Your task to perform on an android device: move an email to a new category in the gmail app Image 0: 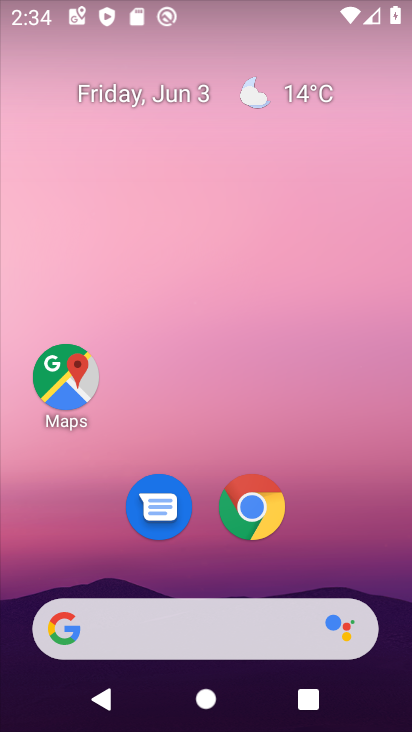
Step 0: drag from (328, 533) to (244, 31)
Your task to perform on an android device: move an email to a new category in the gmail app Image 1: 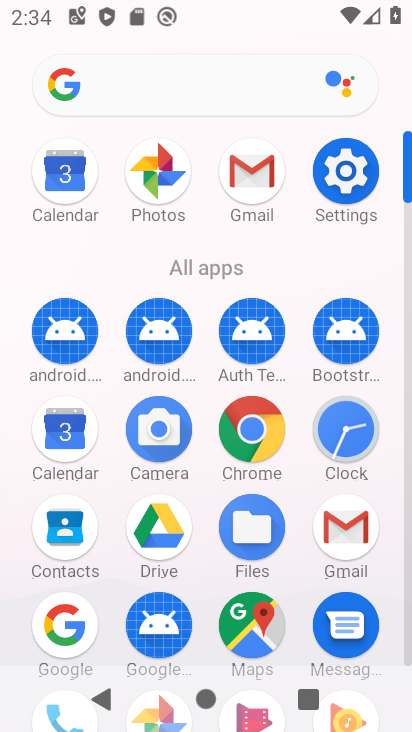
Step 1: click (251, 170)
Your task to perform on an android device: move an email to a new category in the gmail app Image 2: 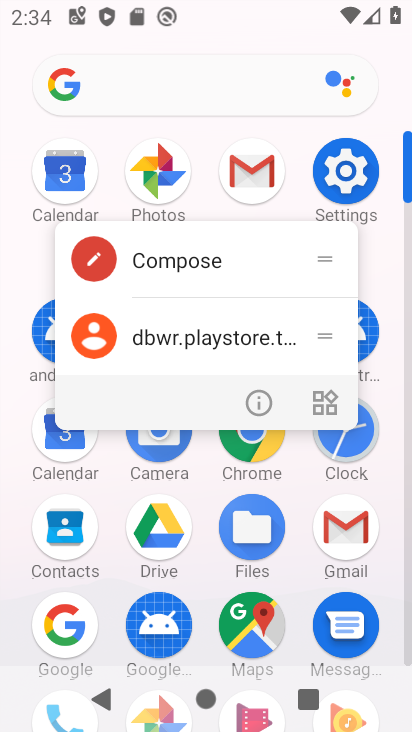
Step 2: click (251, 170)
Your task to perform on an android device: move an email to a new category in the gmail app Image 3: 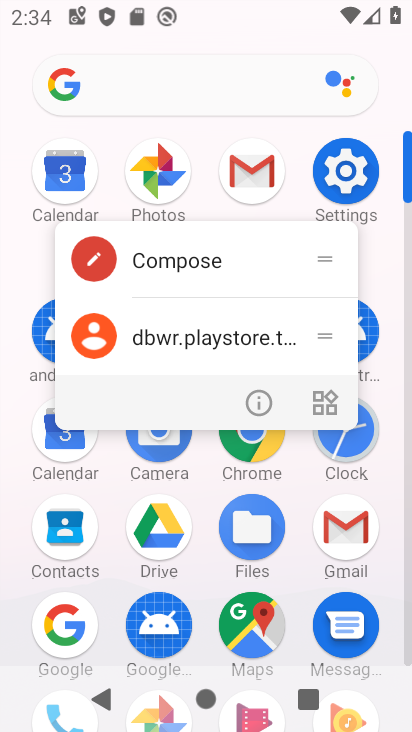
Step 3: click (251, 170)
Your task to perform on an android device: move an email to a new category in the gmail app Image 4: 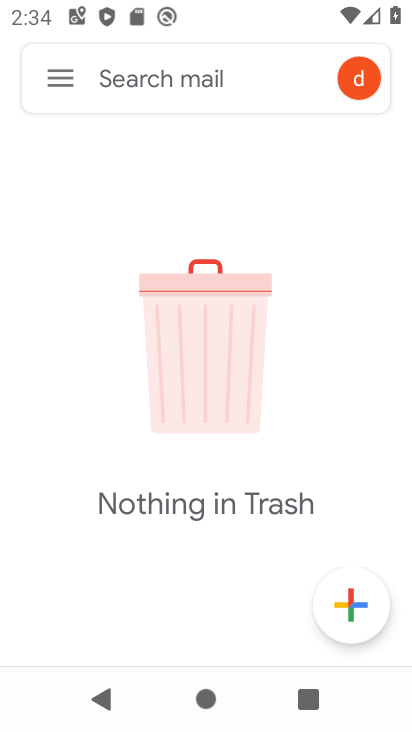
Step 4: click (52, 82)
Your task to perform on an android device: move an email to a new category in the gmail app Image 5: 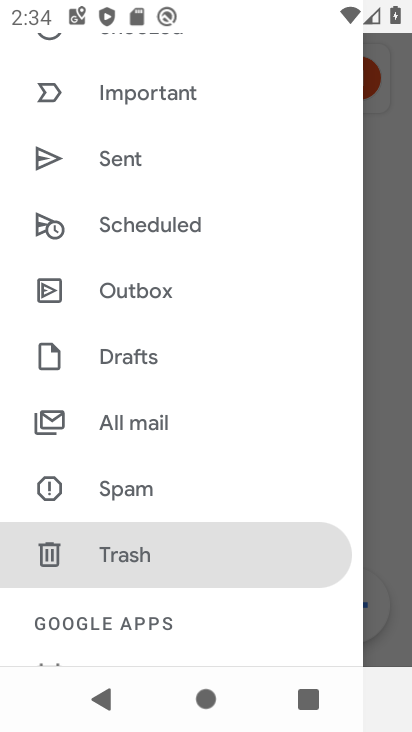
Step 5: click (156, 420)
Your task to perform on an android device: move an email to a new category in the gmail app Image 6: 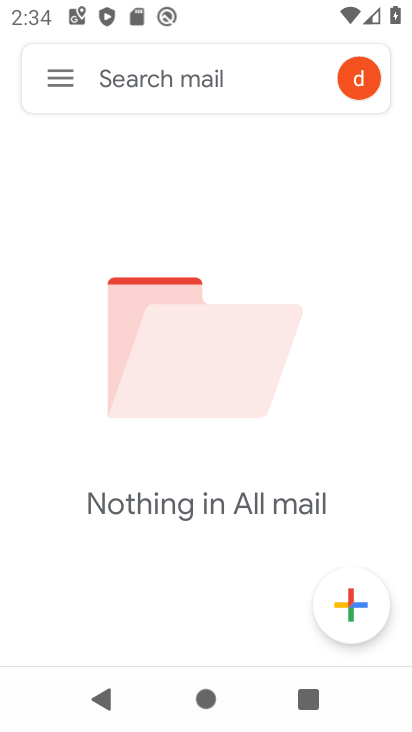
Step 6: click (64, 89)
Your task to perform on an android device: move an email to a new category in the gmail app Image 7: 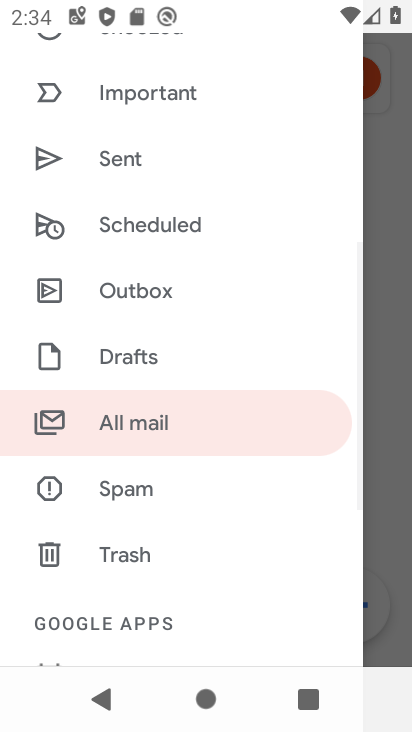
Step 7: drag from (177, 338) to (197, 471)
Your task to perform on an android device: move an email to a new category in the gmail app Image 8: 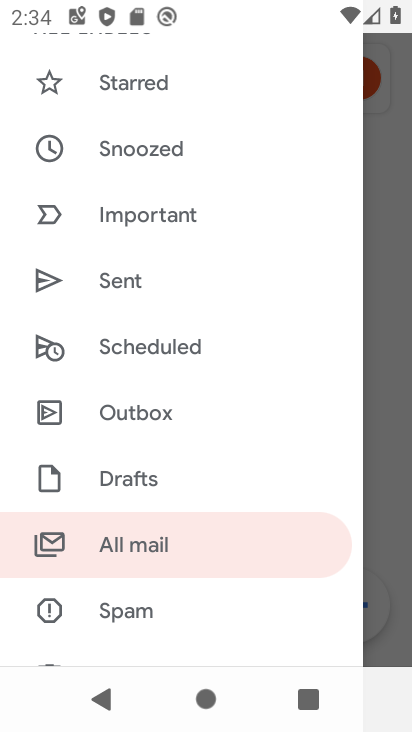
Step 8: drag from (202, 284) to (205, 421)
Your task to perform on an android device: move an email to a new category in the gmail app Image 9: 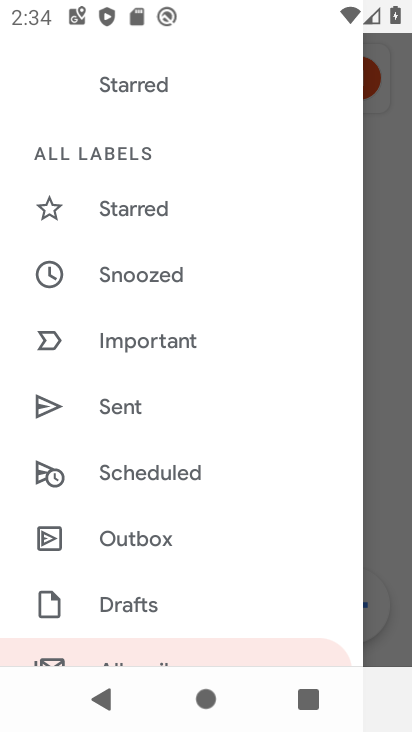
Step 9: drag from (205, 275) to (179, 384)
Your task to perform on an android device: move an email to a new category in the gmail app Image 10: 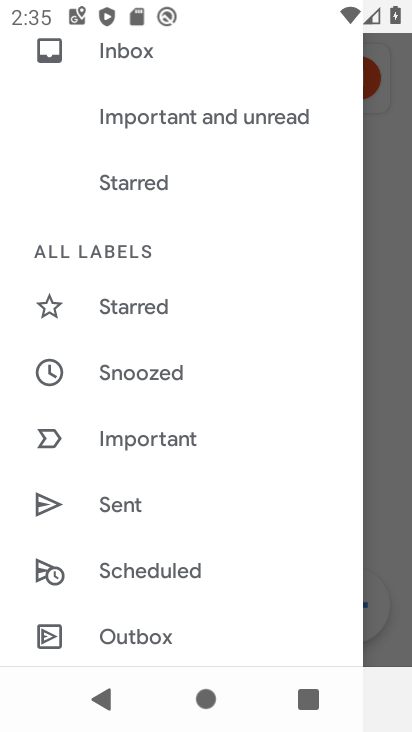
Step 10: drag from (185, 212) to (215, 315)
Your task to perform on an android device: move an email to a new category in the gmail app Image 11: 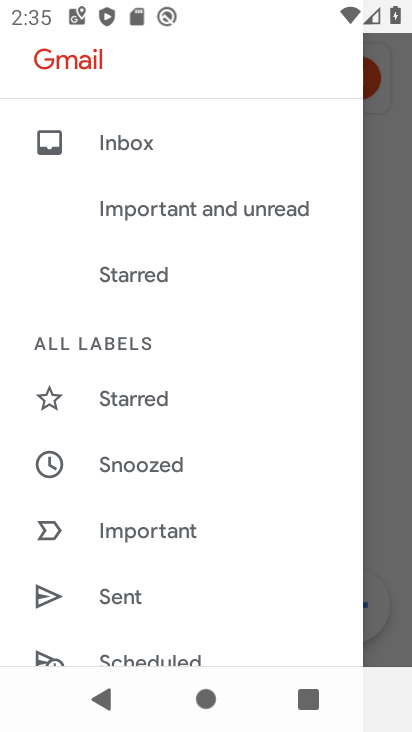
Step 11: click (118, 142)
Your task to perform on an android device: move an email to a new category in the gmail app Image 12: 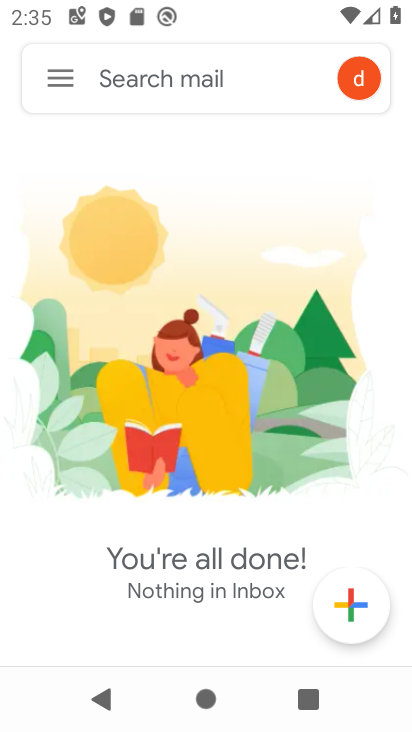
Step 12: click (62, 85)
Your task to perform on an android device: move an email to a new category in the gmail app Image 13: 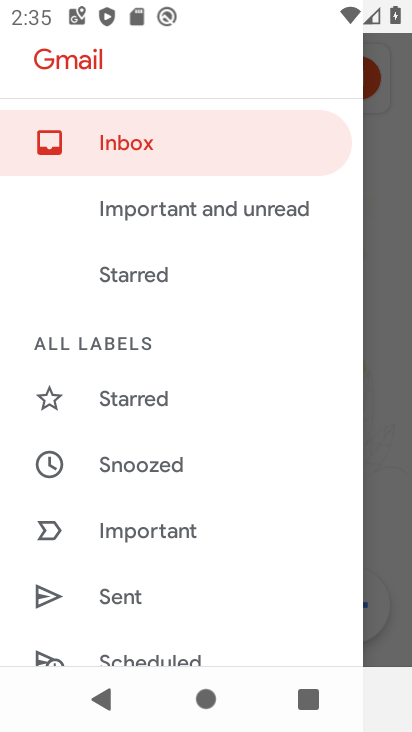
Step 13: click (174, 204)
Your task to perform on an android device: move an email to a new category in the gmail app Image 14: 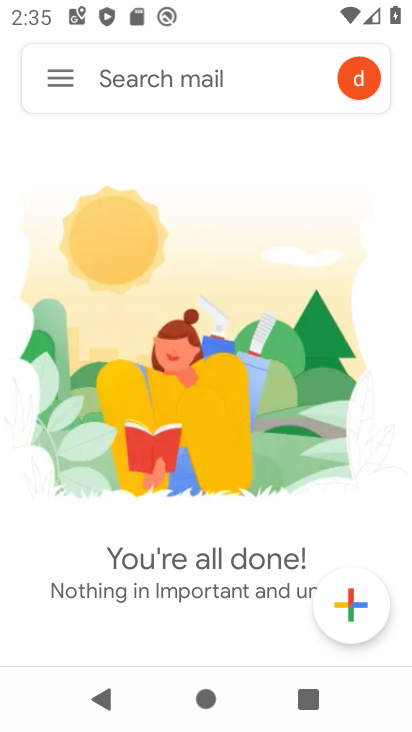
Step 14: click (61, 77)
Your task to perform on an android device: move an email to a new category in the gmail app Image 15: 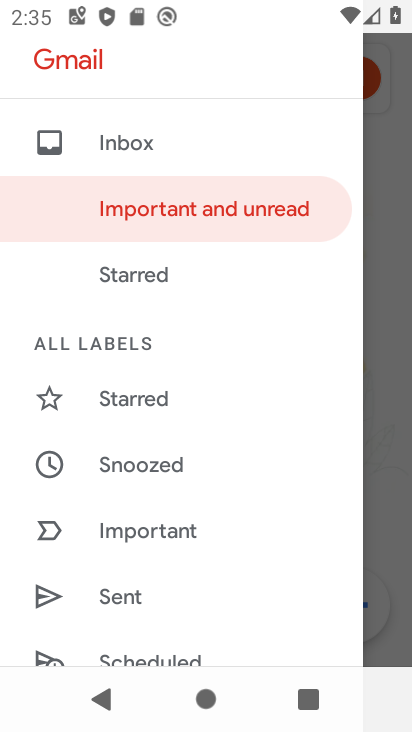
Step 15: click (150, 465)
Your task to perform on an android device: move an email to a new category in the gmail app Image 16: 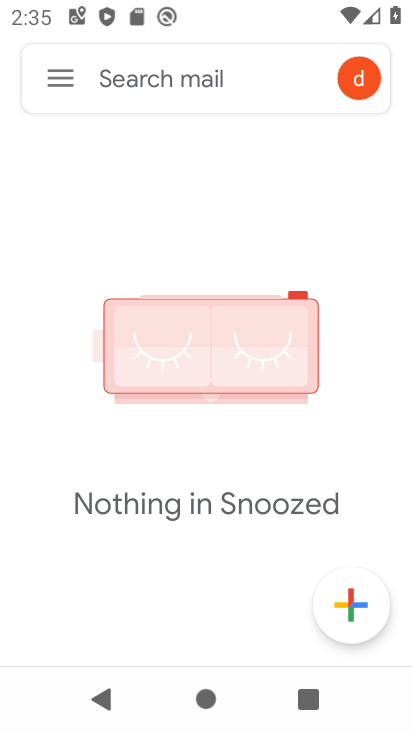
Step 16: task complete